Your task to perform on an android device: Open the web browser Image 0: 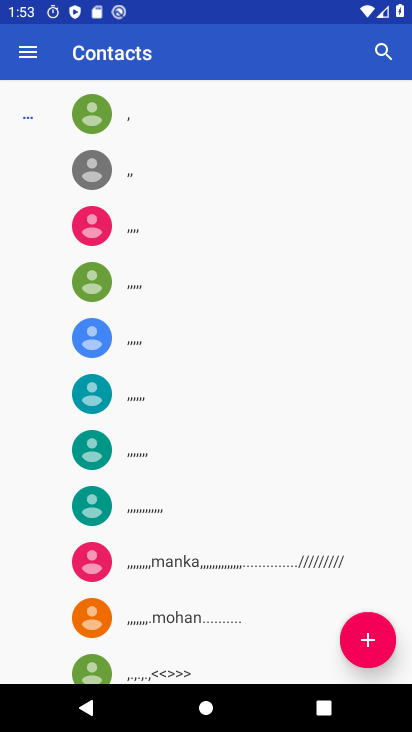
Step 0: press home button
Your task to perform on an android device: Open the web browser Image 1: 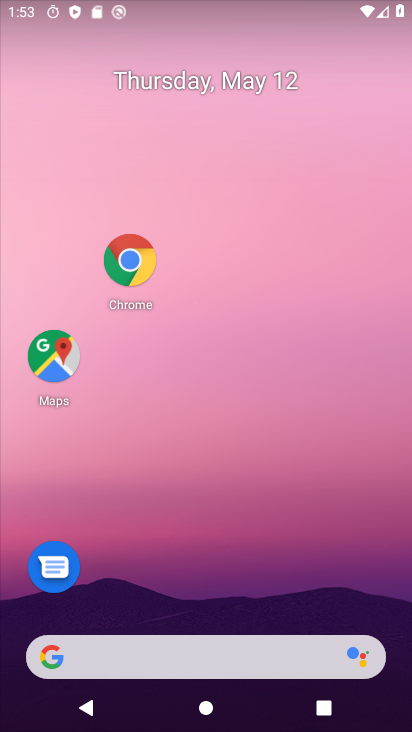
Step 1: click (130, 255)
Your task to perform on an android device: Open the web browser Image 2: 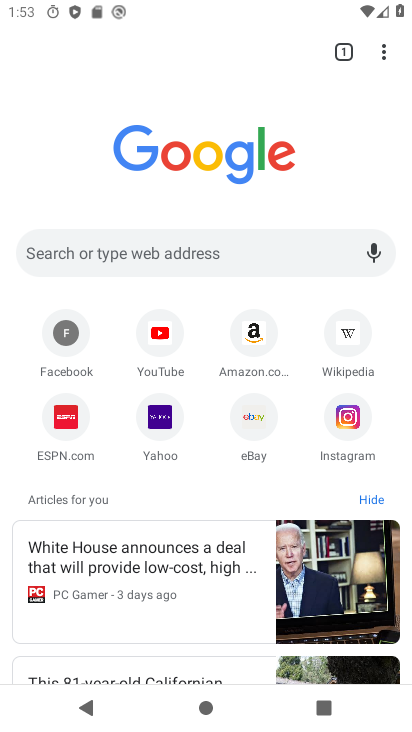
Step 2: task complete